Your task to perform on an android device: Is it going to rain this weekend? Image 0: 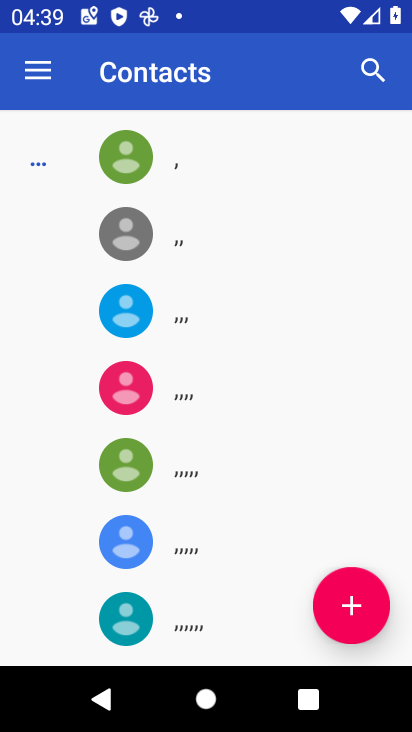
Step 0: press home button
Your task to perform on an android device: Is it going to rain this weekend? Image 1: 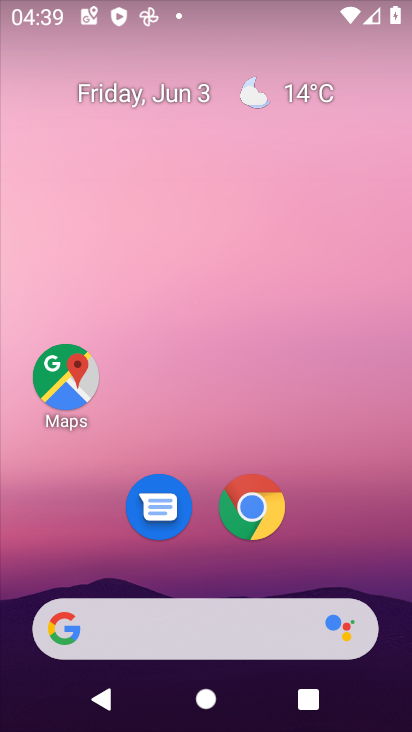
Step 1: click (193, 636)
Your task to perform on an android device: Is it going to rain this weekend? Image 2: 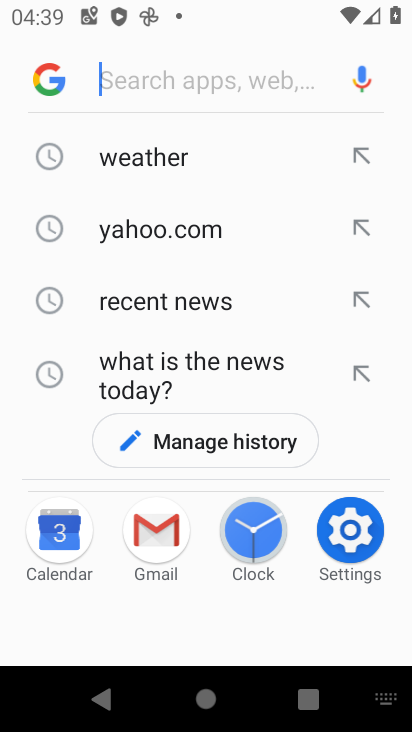
Step 2: type "Is it going to rain this weekend?"
Your task to perform on an android device: Is it going to rain this weekend? Image 3: 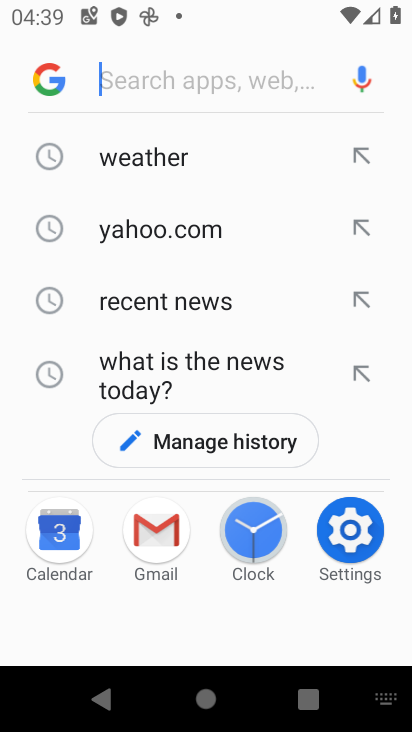
Step 3: click (130, 74)
Your task to perform on an android device: Is it going to rain this weekend? Image 4: 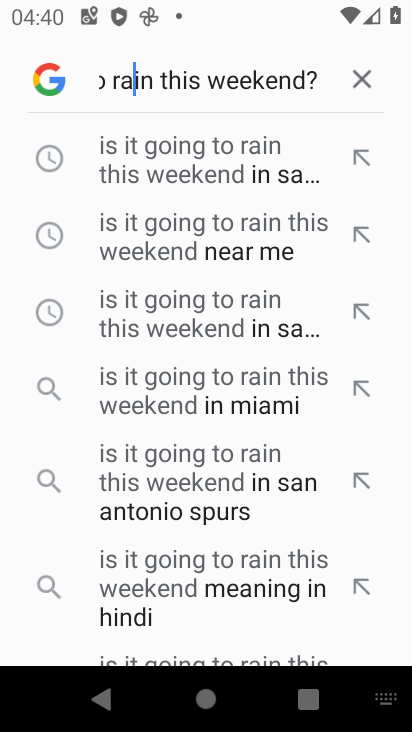
Step 4: click (203, 140)
Your task to perform on an android device: Is it going to rain this weekend? Image 5: 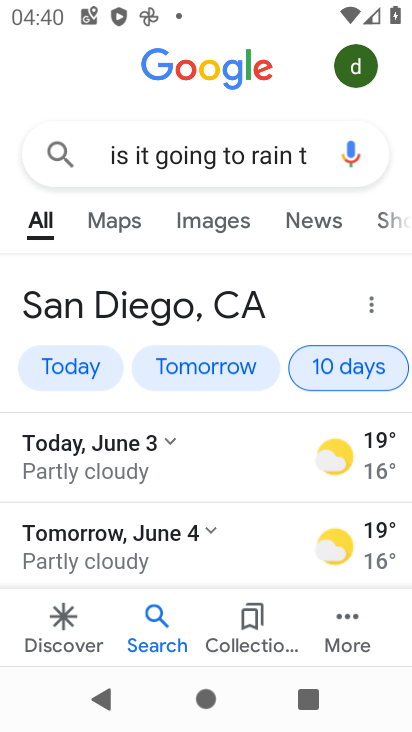
Step 5: task complete